Your task to perform on an android device: Open calendar and show me the third week of next month Image 0: 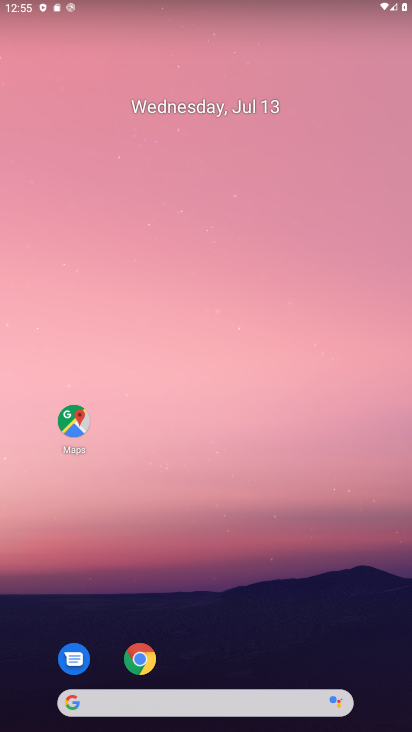
Step 0: drag from (217, 652) to (277, 150)
Your task to perform on an android device: Open calendar and show me the third week of next month Image 1: 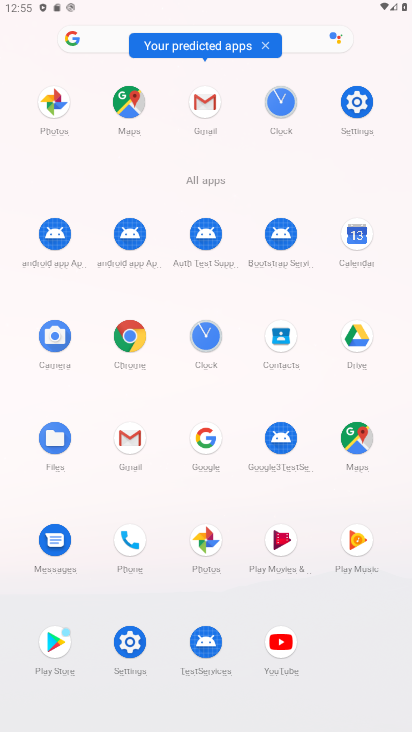
Step 1: click (360, 235)
Your task to perform on an android device: Open calendar and show me the third week of next month Image 2: 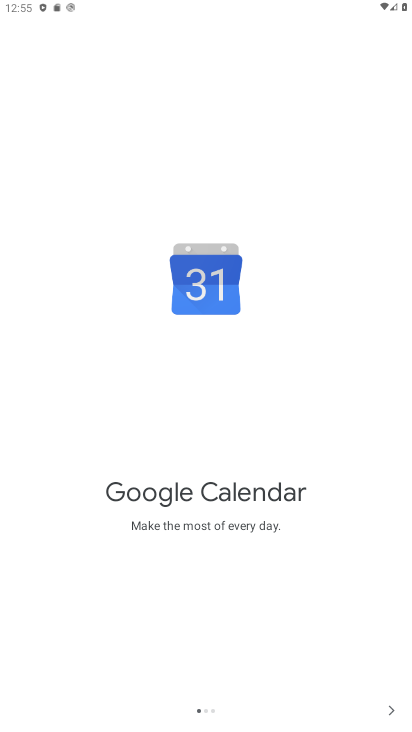
Step 2: click (391, 711)
Your task to perform on an android device: Open calendar and show me the third week of next month Image 3: 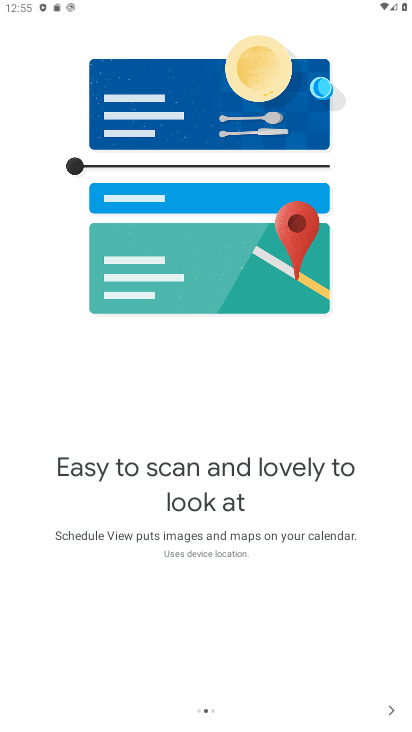
Step 3: click (391, 711)
Your task to perform on an android device: Open calendar and show me the third week of next month Image 4: 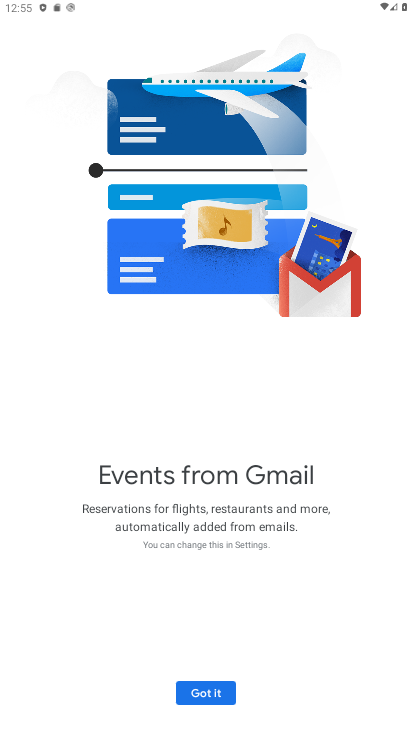
Step 4: click (212, 692)
Your task to perform on an android device: Open calendar and show me the third week of next month Image 5: 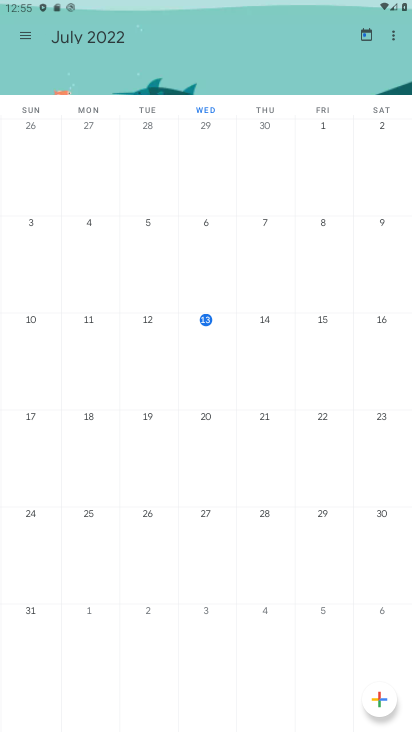
Step 5: drag from (390, 642) to (3, 585)
Your task to perform on an android device: Open calendar and show me the third week of next month Image 6: 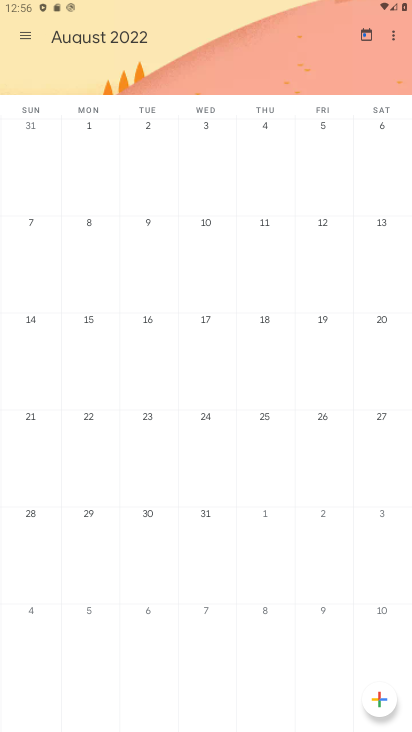
Step 6: click (323, 332)
Your task to perform on an android device: Open calendar and show me the third week of next month Image 7: 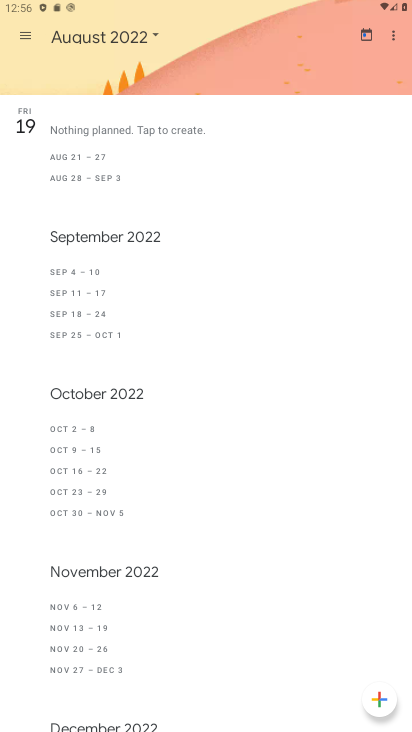
Step 7: task complete